Your task to perform on an android device: How do I get to the nearest Burger King? Image 0: 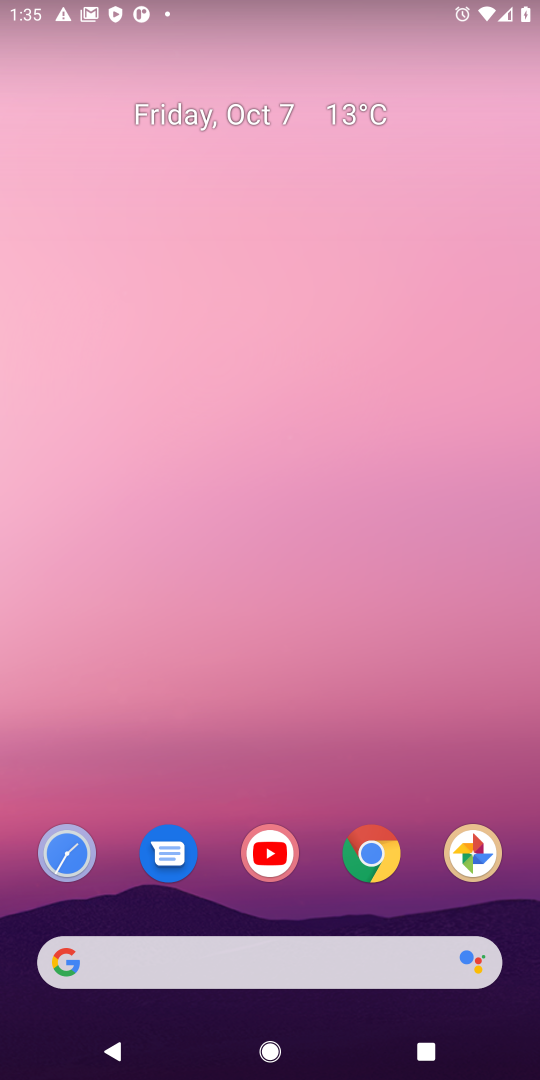
Step 0: click (309, 974)
Your task to perform on an android device: How do I get to the nearest Burger King? Image 1: 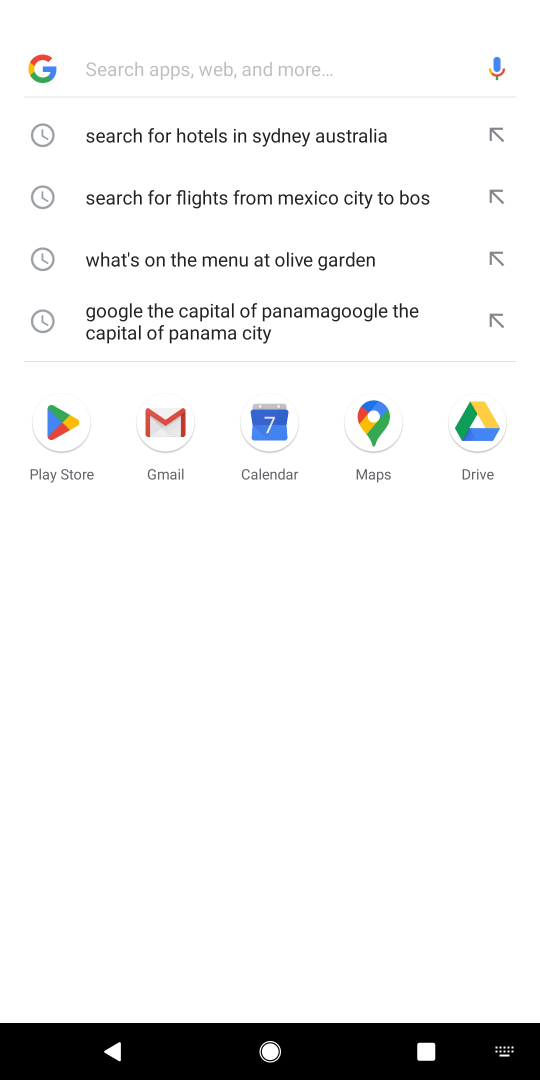
Step 1: type "How do I get to the nearest Burger King?"
Your task to perform on an android device: How do I get to the nearest Burger King? Image 2: 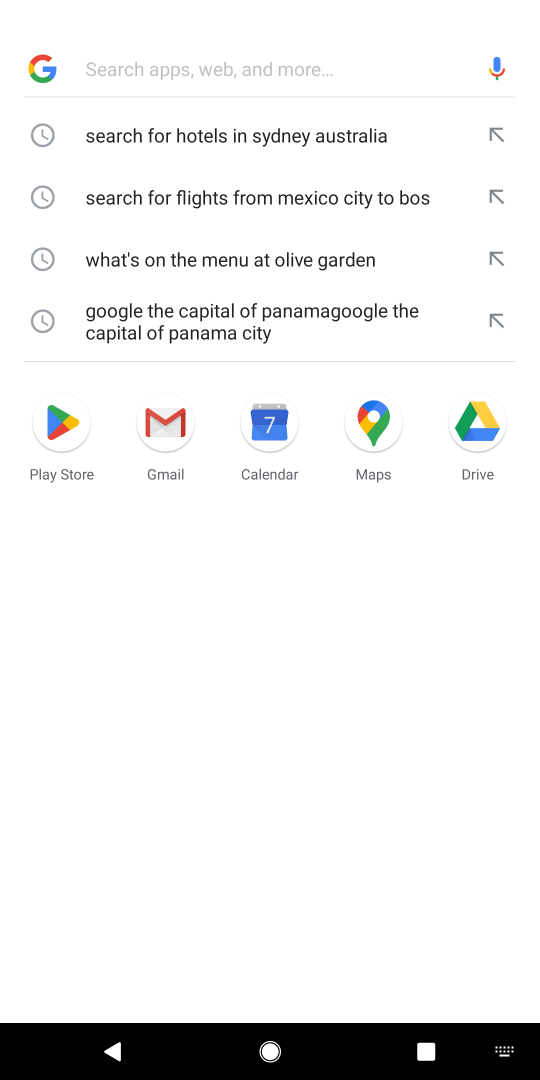
Step 2: click (246, 64)
Your task to perform on an android device: How do I get to the nearest Burger King? Image 3: 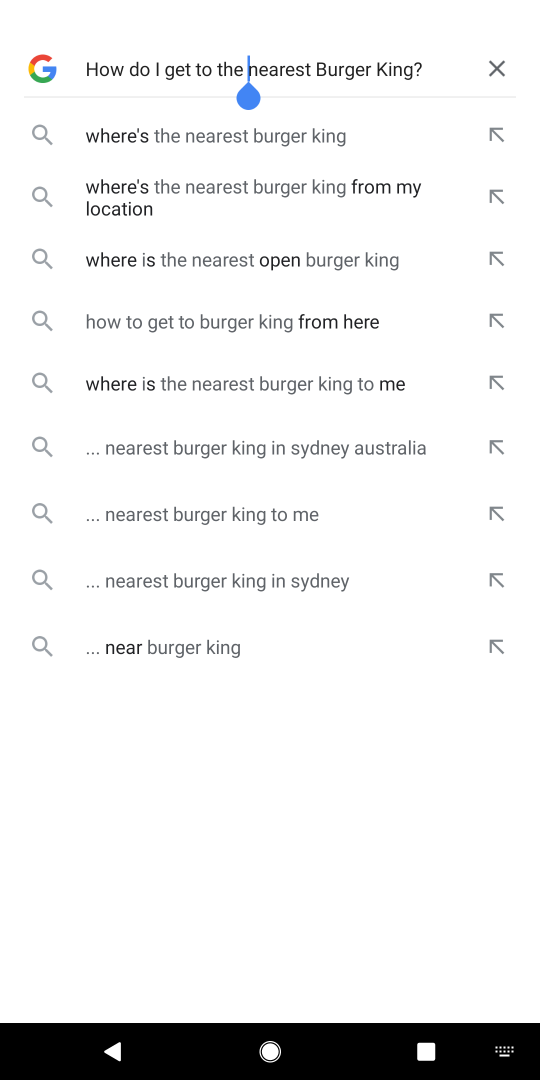
Step 3: click (311, 143)
Your task to perform on an android device: How do I get to the nearest Burger King? Image 4: 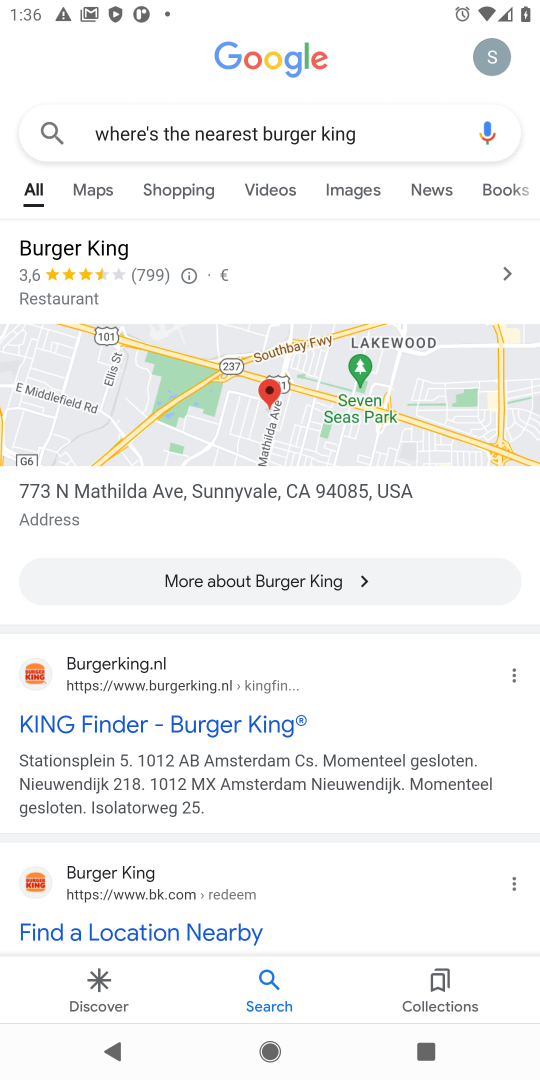
Step 4: task complete